Your task to perform on an android device: Go to Amazon Image 0: 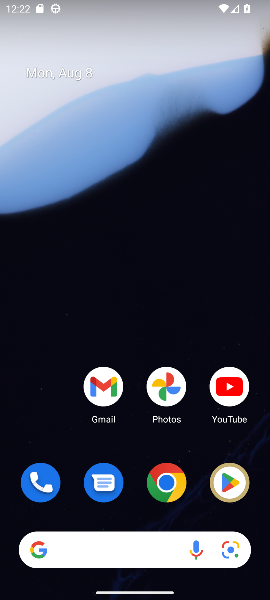
Step 0: drag from (97, 543) to (191, 40)
Your task to perform on an android device: Go to Amazon Image 1: 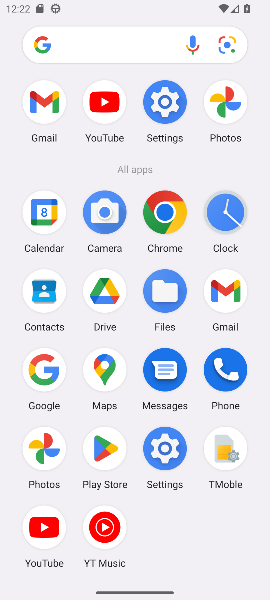
Step 1: click (175, 211)
Your task to perform on an android device: Go to Amazon Image 2: 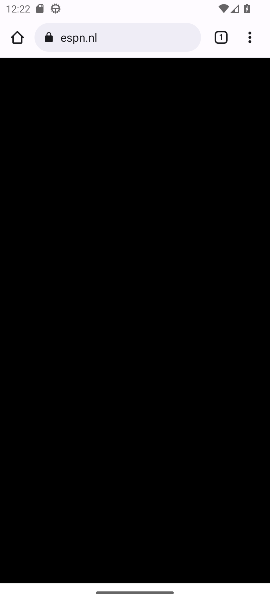
Step 2: click (106, 35)
Your task to perform on an android device: Go to Amazon Image 3: 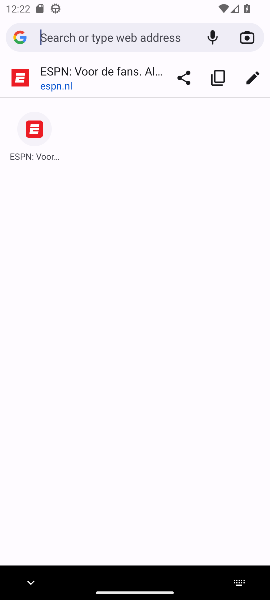
Step 3: type "amazon"
Your task to perform on an android device: Go to Amazon Image 4: 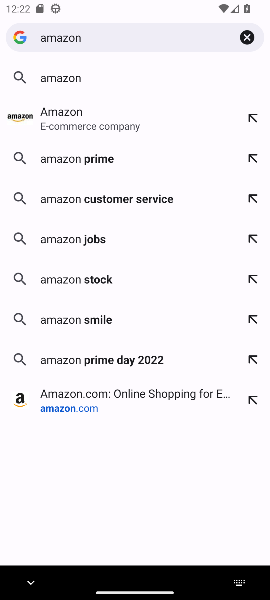
Step 4: click (70, 112)
Your task to perform on an android device: Go to Amazon Image 5: 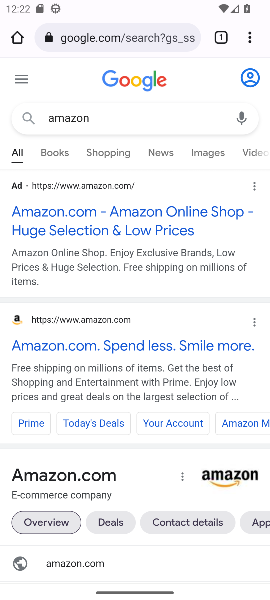
Step 5: task complete